Your task to perform on an android device: Go to internet settings Image 0: 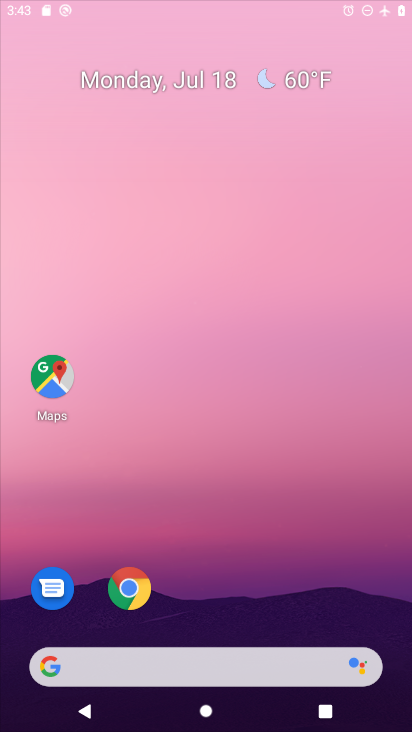
Step 0: press home button
Your task to perform on an android device: Go to internet settings Image 1: 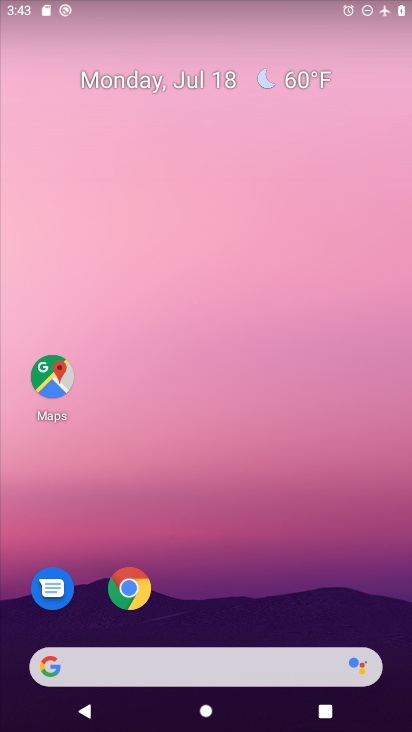
Step 1: drag from (222, 627) to (216, 107)
Your task to perform on an android device: Go to internet settings Image 2: 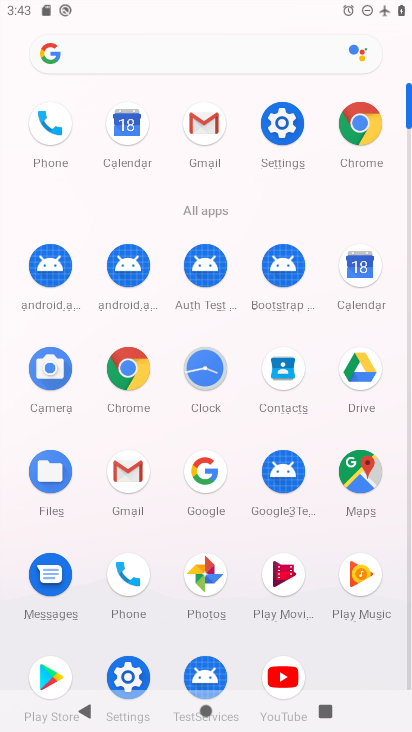
Step 2: click (277, 118)
Your task to perform on an android device: Go to internet settings Image 3: 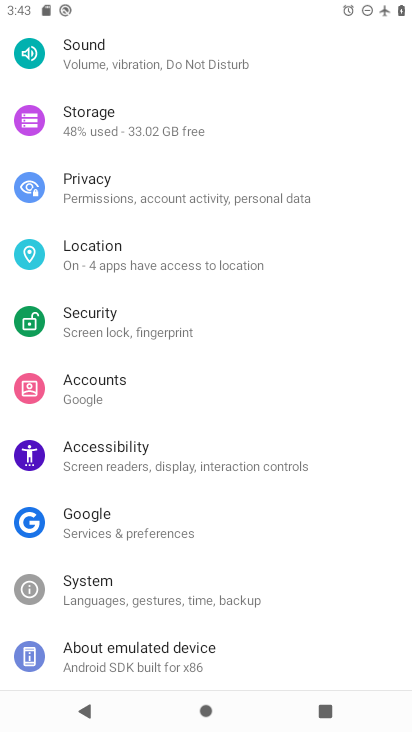
Step 3: drag from (171, 159) to (201, 595)
Your task to perform on an android device: Go to internet settings Image 4: 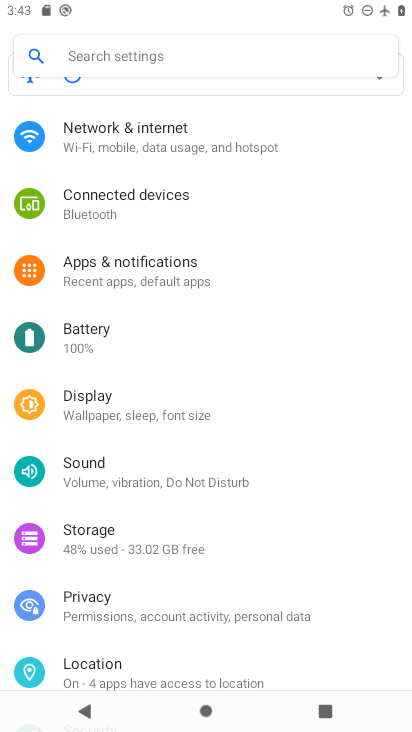
Step 4: click (159, 136)
Your task to perform on an android device: Go to internet settings Image 5: 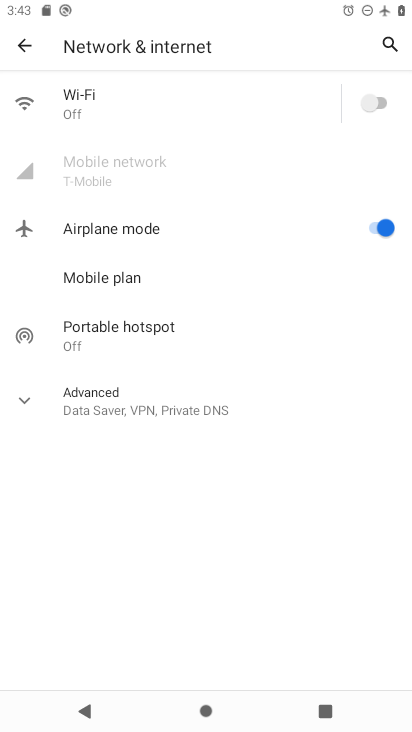
Step 5: click (79, 404)
Your task to perform on an android device: Go to internet settings Image 6: 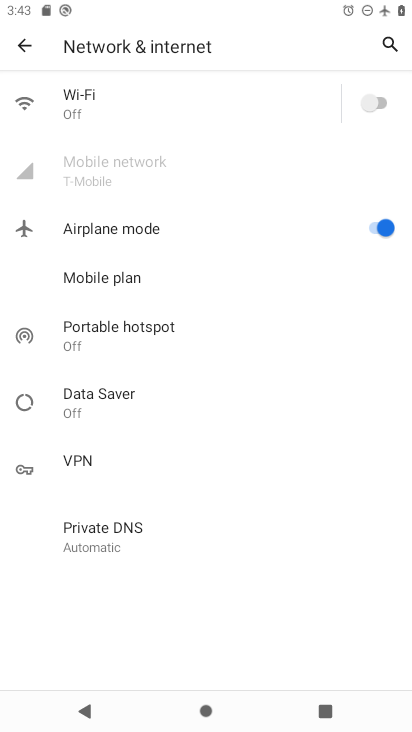
Step 6: task complete